Your task to perform on an android device: Open network settings Image 0: 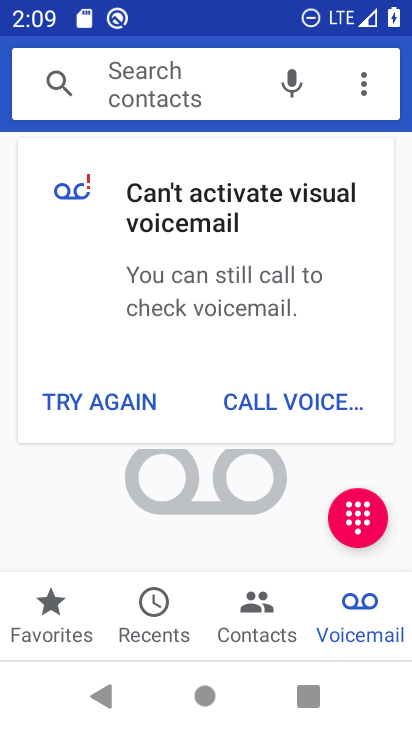
Step 0: press home button
Your task to perform on an android device: Open network settings Image 1: 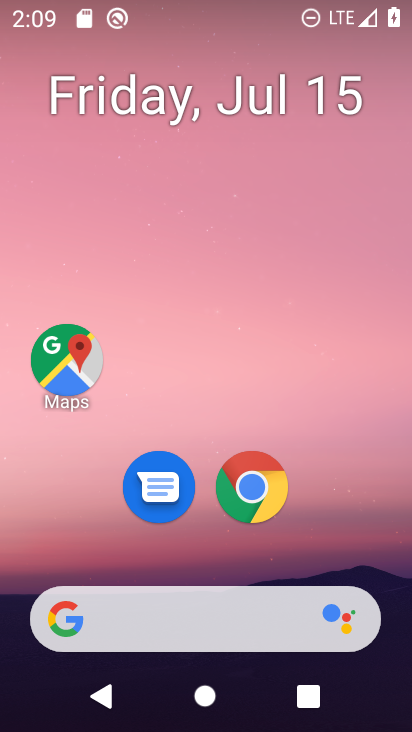
Step 1: drag from (220, 636) to (283, 234)
Your task to perform on an android device: Open network settings Image 2: 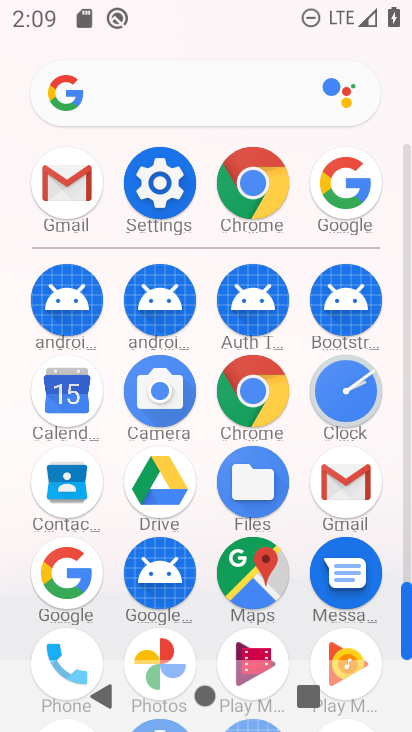
Step 2: click (152, 176)
Your task to perform on an android device: Open network settings Image 3: 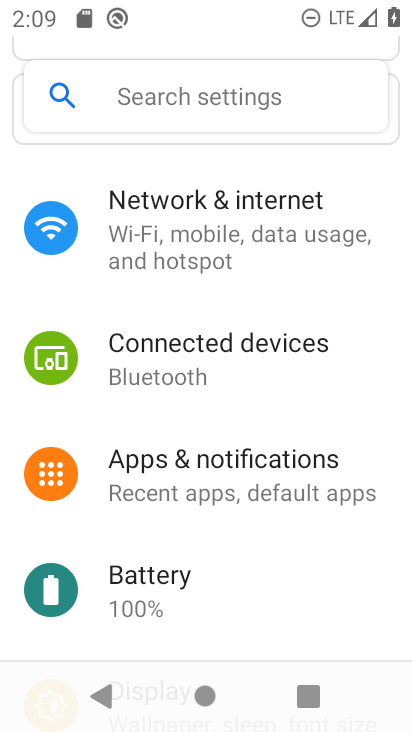
Step 3: click (207, 216)
Your task to perform on an android device: Open network settings Image 4: 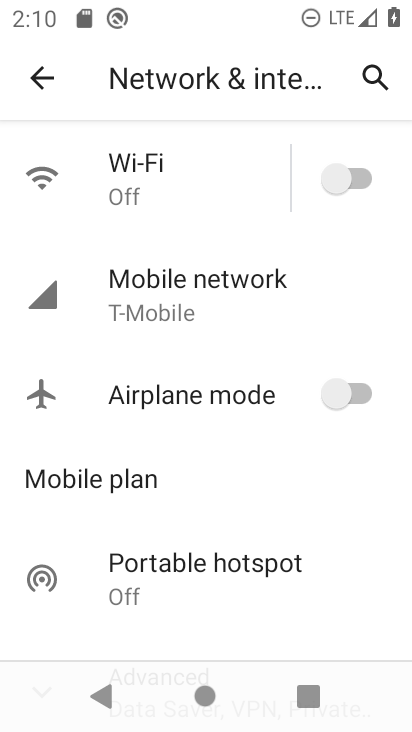
Step 4: click (216, 305)
Your task to perform on an android device: Open network settings Image 5: 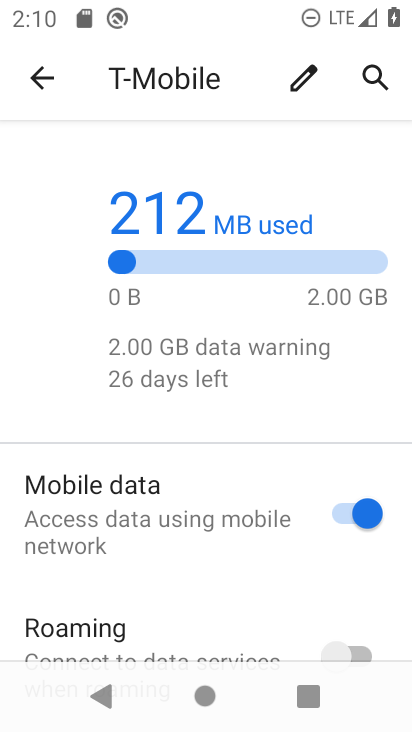
Step 5: task complete